Your task to perform on an android device: Open the phone app and click the voicemail tab. Image 0: 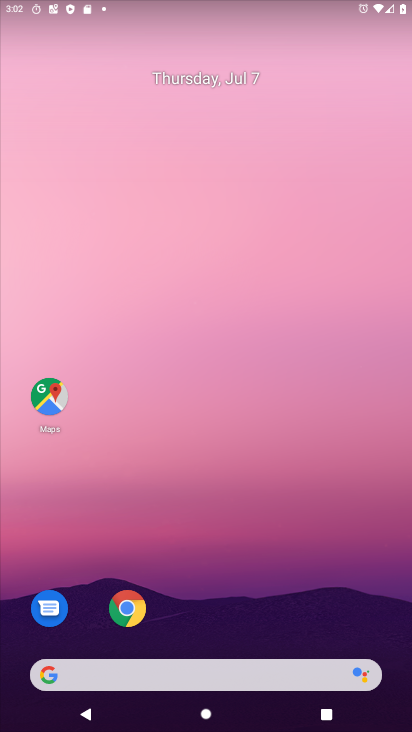
Step 0: drag from (245, 714) to (245, 212)
Your task to perform on an android device: Open the phone app and click the voicemail tab. Image 1: 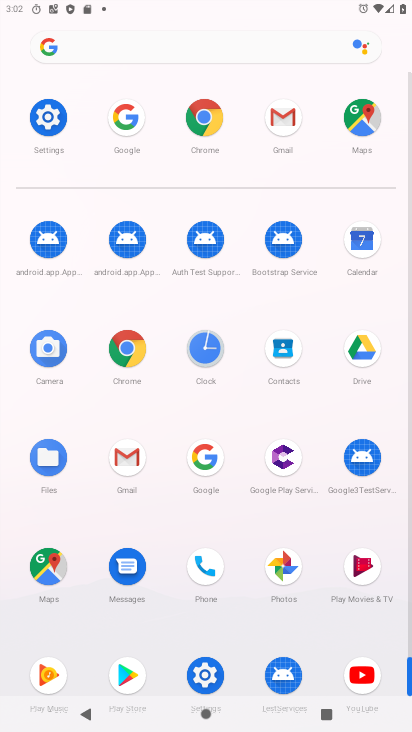
Step 1: click (202, 565)
Your task to perform on an android device: Open the phone app and click the voicemail tab. Image 2: 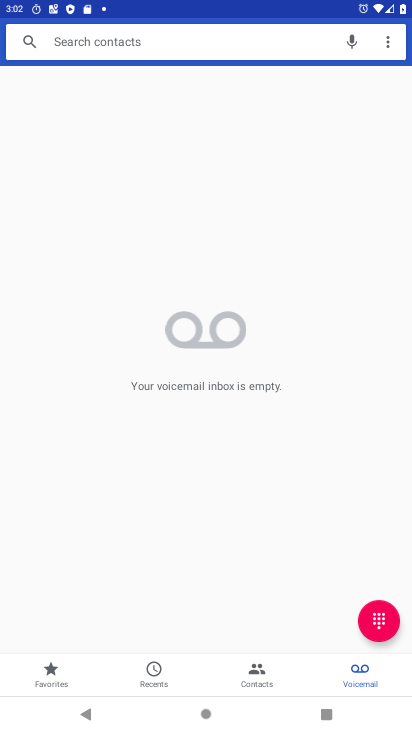
Step 2: task complete